Your task to perform on an android device: Open Youtube and go to "Your channel" Image 0: 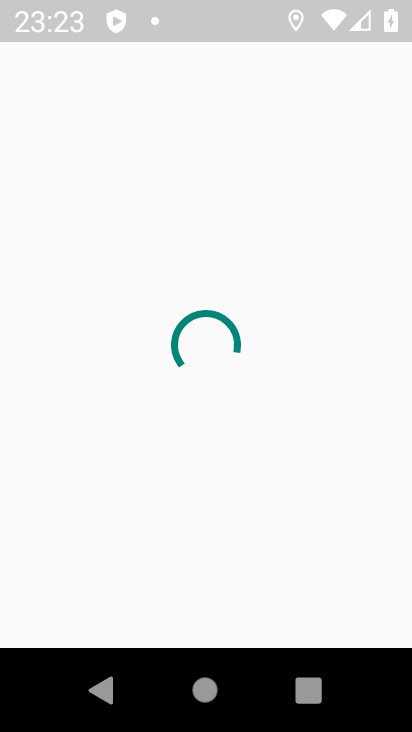
Step 0: press home button
Your task to perform on an android device: Open Youtube and go to "Your channel" Image 1: 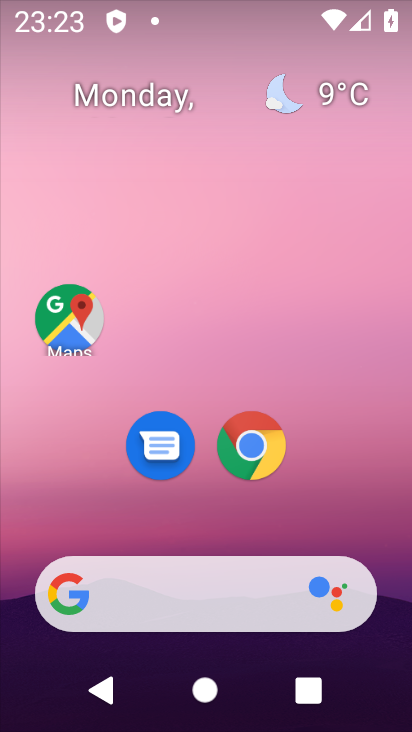
Step 1: drag from (278, 639) to (207, 29)
Your task to perform on an android device: Open Youtube and go to "Your channel" Image 2: 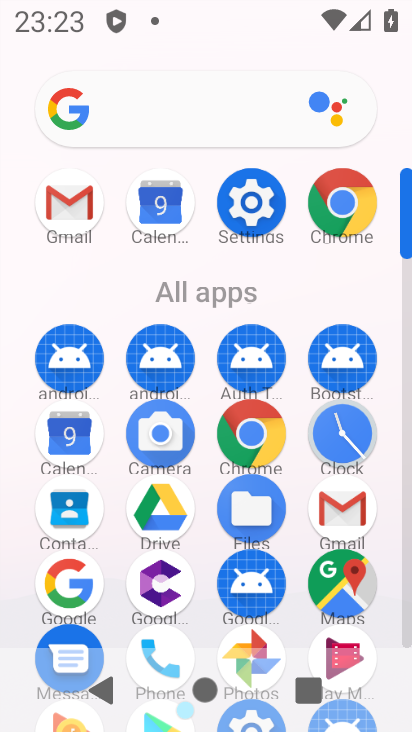
Step 2: drag from (200, 601) to (209, 193)
Your task to perform on an android device: Open Youtube and go to "Your channel" Image 3: 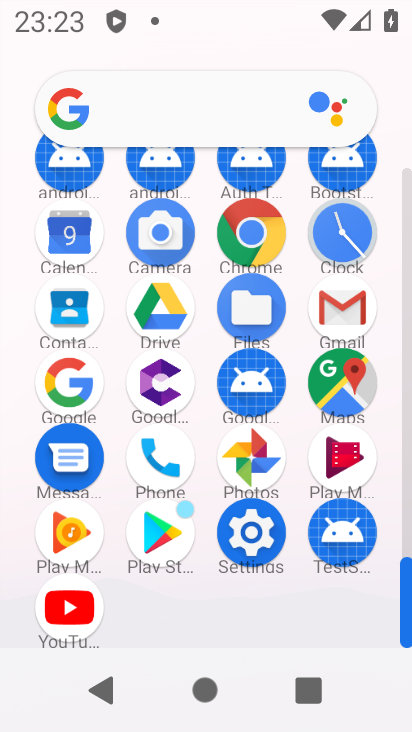
Step 3: click (70, 601)
Your task to perform on an android device: Open Youtube and go to "Your channel" Image 4: 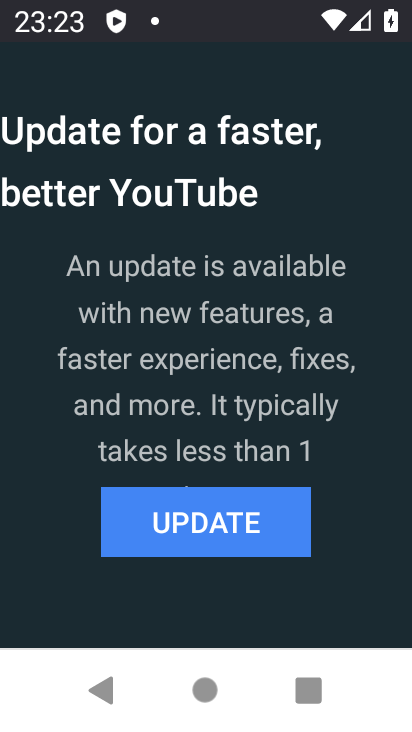
Step 4: drag from (181, 611) to (115, 328)
Your task to perform on an android device: Open Youtube and go to "Your channel" Image 5: 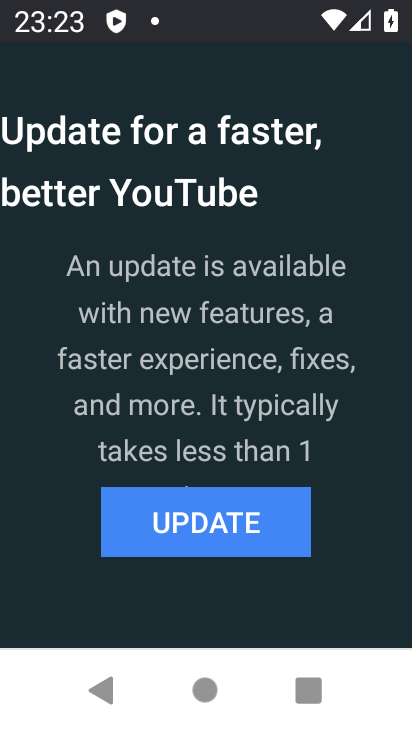
Step 5: click (230, 537)
Your task to perform on an android device: Open Youtube and go to "Your channel" Image 6: 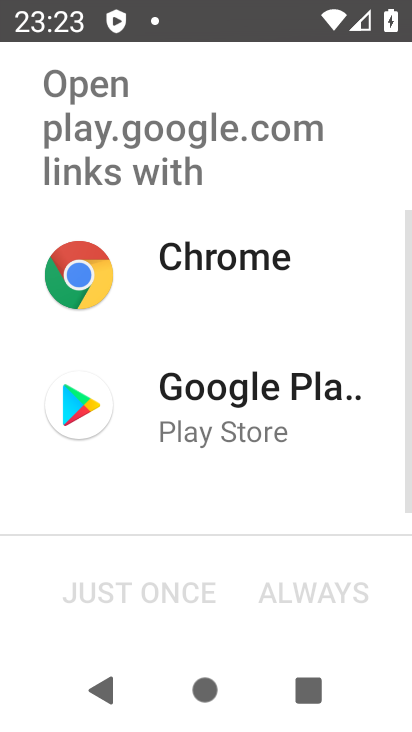
Step 6: click (245, 393)
Your task to perform on an android device: Open Youtube and go to "Your channel" Image 7: 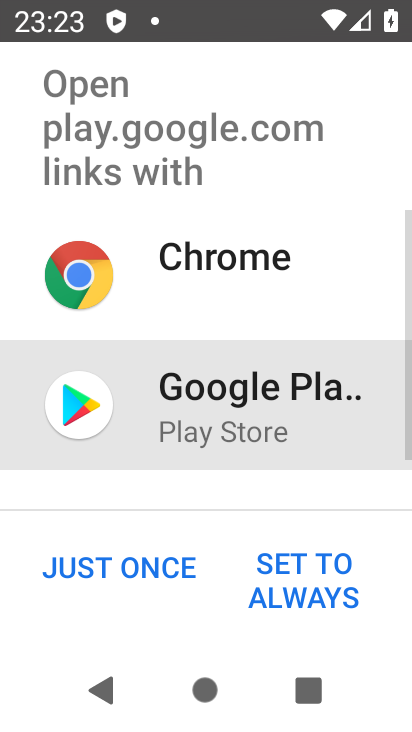
Step 7: click (171, 565)
Your task to perform on an android device: Open Youtube and go to "Your channel" Image 8: 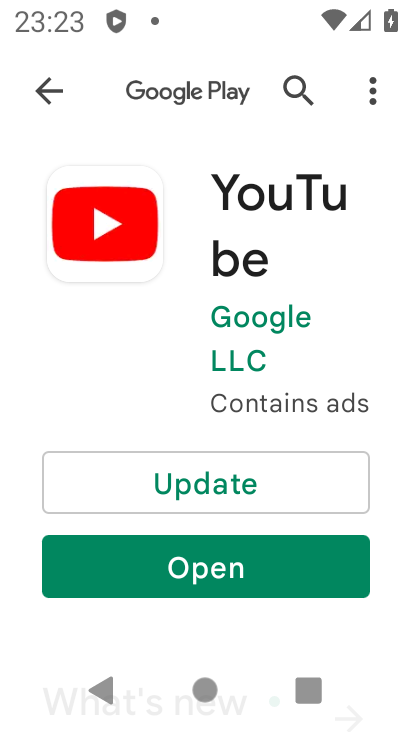
Step 8: click (185, 502)
Your task to perform on an android device: Open Youtube and go to "Your channel" Image 9: 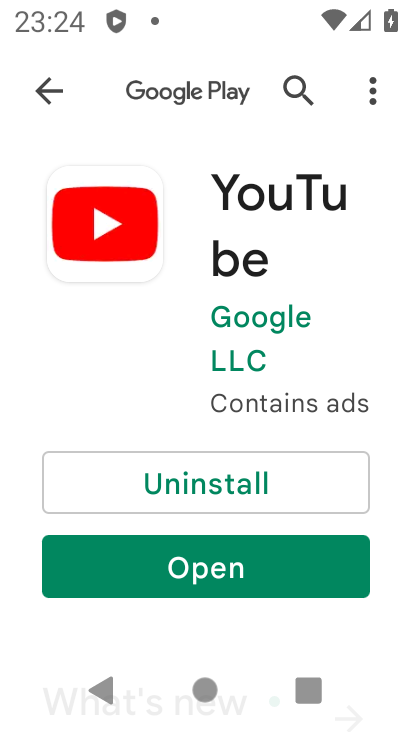
Step 9: click (203, 568)
Your task to perform on an android device: Open Youtube and go to "Your channel" Image 10: 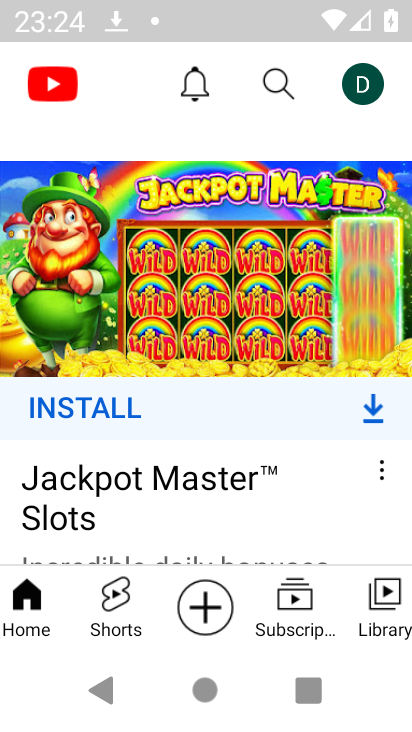
Step 10: click (356, 91)
Your task to perform on an android device: Open Youtube and go to "Your channel" Image 11: 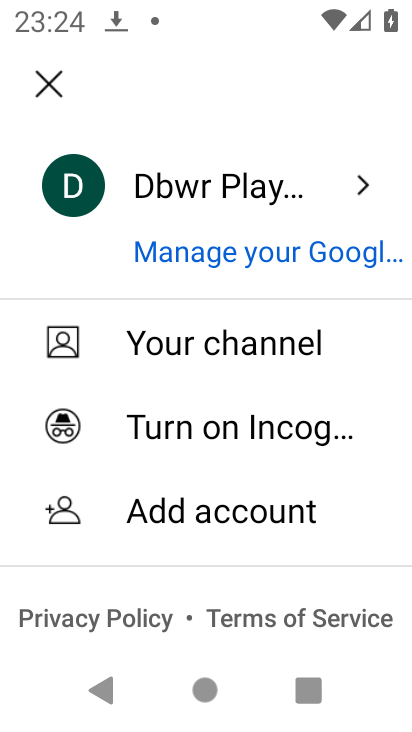
Step 11: click (294, 351)
Your task to perform on an android device: Open Youtube and go to "Your channel" Image 12: 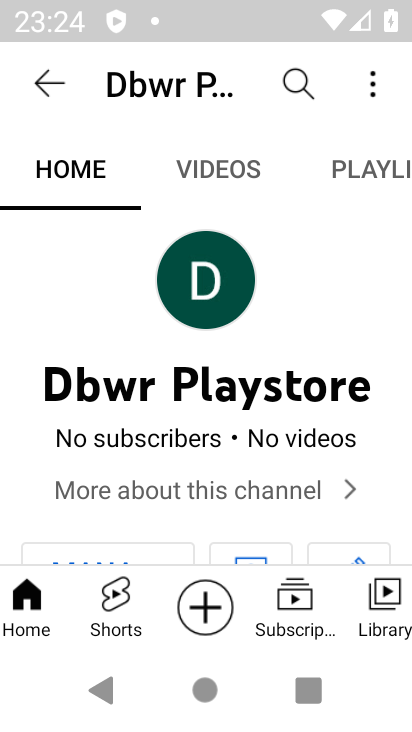
Step 12: task complete